Your task to perform on an android device: toggle notifications settings in the gmail app Image 0: 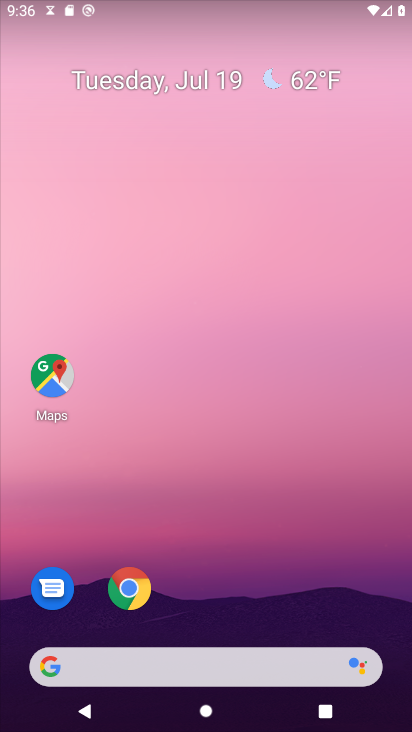
Step 0: drag from (223, 584) to (221, 37)
Your task to perform on an android device: toggle notifications settings in the gmail app Image 1: 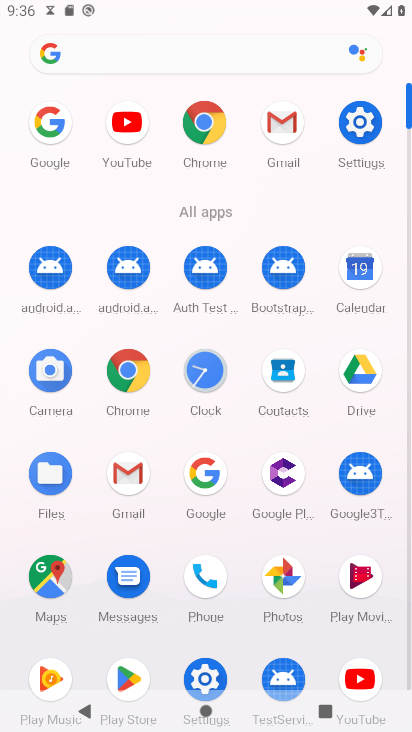
Step 1: click (278, 128)
Your task to perform on an android device: toggle notifications settings in the gmail app Image 2: 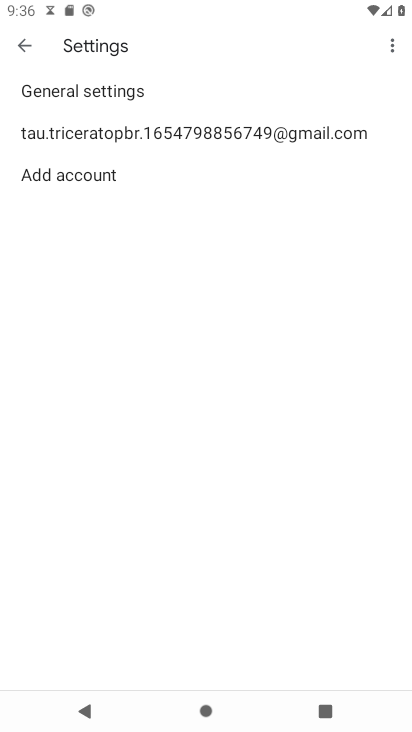
Step 2: click (95, 128)
Your task to perform on an android device: toggle notifications settings in the gmail app Image 3: 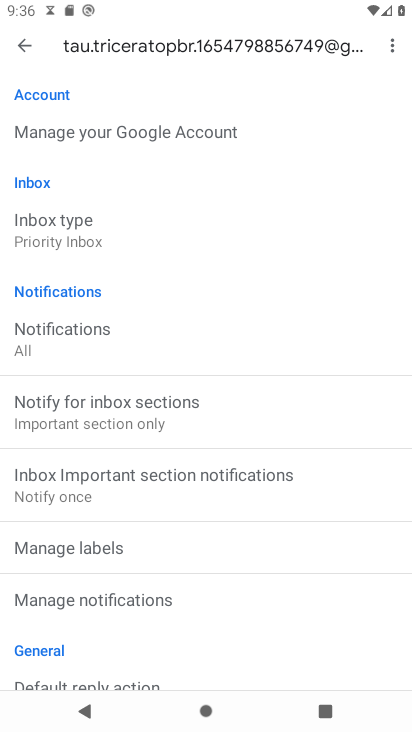
Step 3: click (54, 603)
Your task to perform on an android device: toggle notifications settings in the gmail app Image 4: 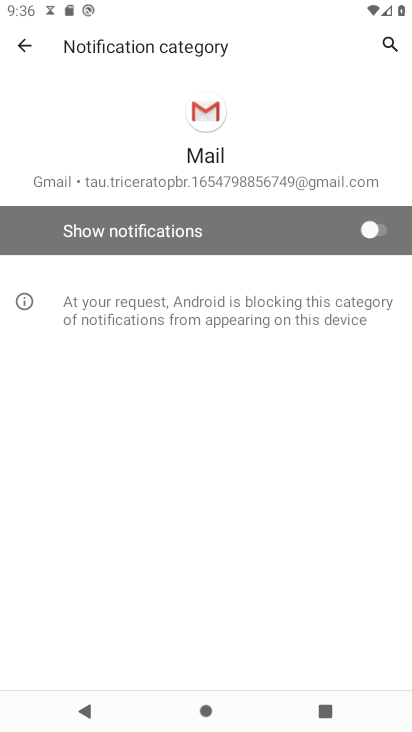
Step 4: click (379, 240)
Your task to perform on an android device: toggle notifications settings in the gmail app Image 5: 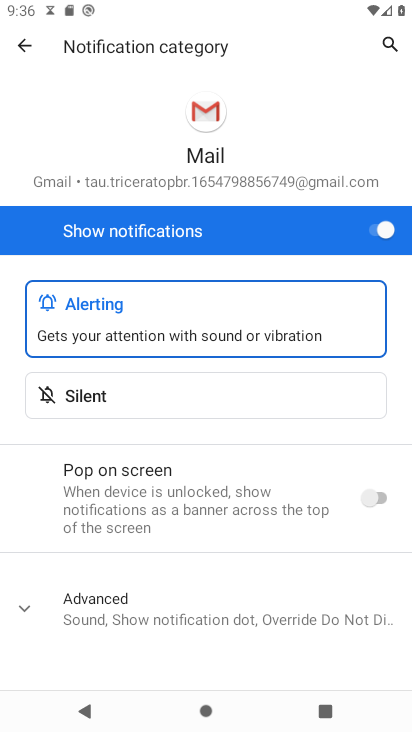
Step 5: task complete